Your task to perform on an android device: toggle show notifications on the lock screen Image 0: 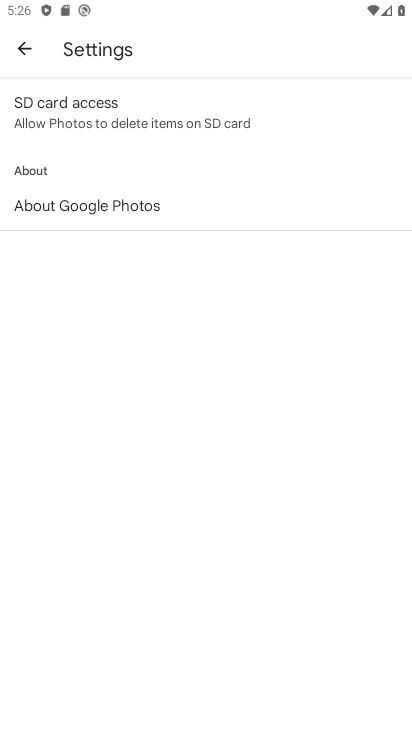
Step 0: press home button
Your task to perform on an android device: toggle show notifications on the lock screen Image 1: 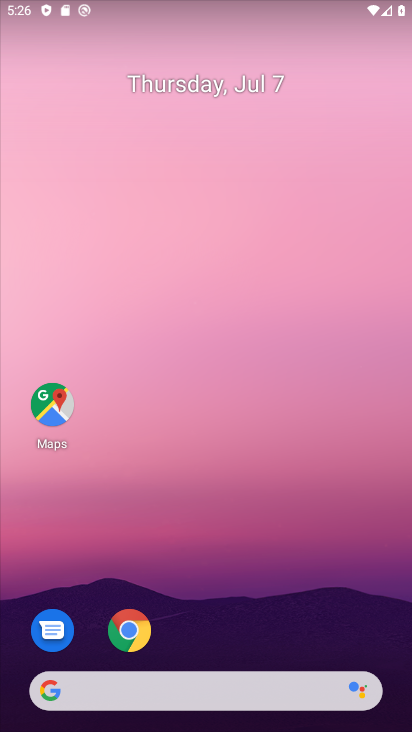
Step 1: drag from (314, 0) to (299, 48)
Your task to perform on an android device: toggle show notifications on the lock screen Image 2: 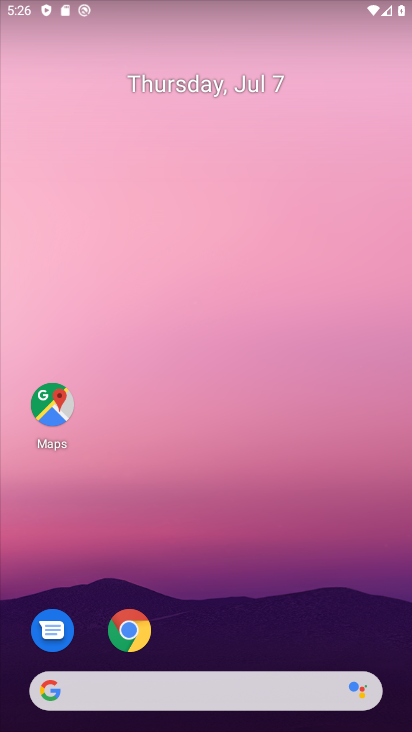
Step 2: drag from (191, 644) to (234, 127)
Your task to perform on an android device: toggle show notifications on the lock screen Image 3: 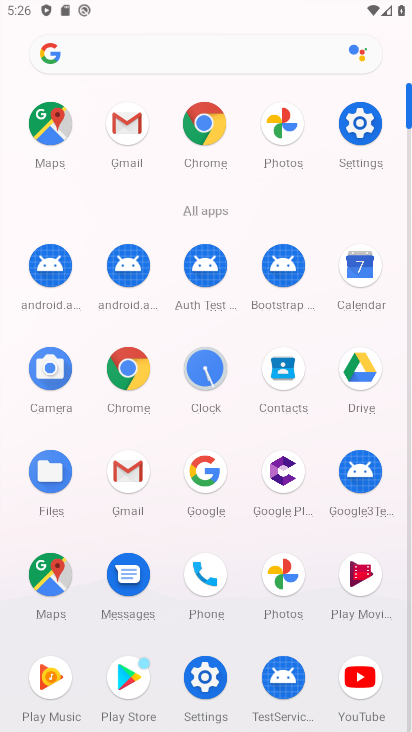
Step 3: click (372, 118)
Your task to perform on an android device: toggle show notifications on the lock screen Image 4: 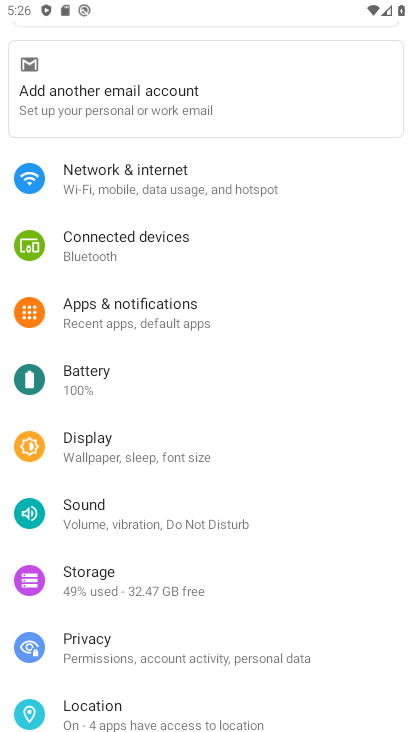
Step 4: click (171, 306)
Your task to perform on an android device: toggle show notifications on the lock screen Image 5: 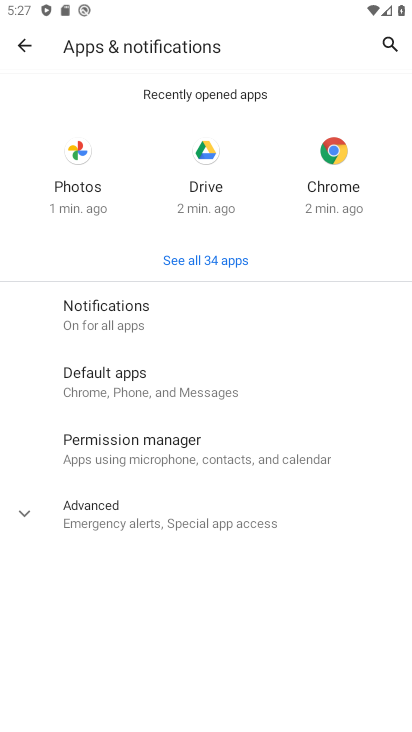
Step 5: click (130, 319)
Your task to perform on an android device: toggle show notifications on the lock screen Image 6: 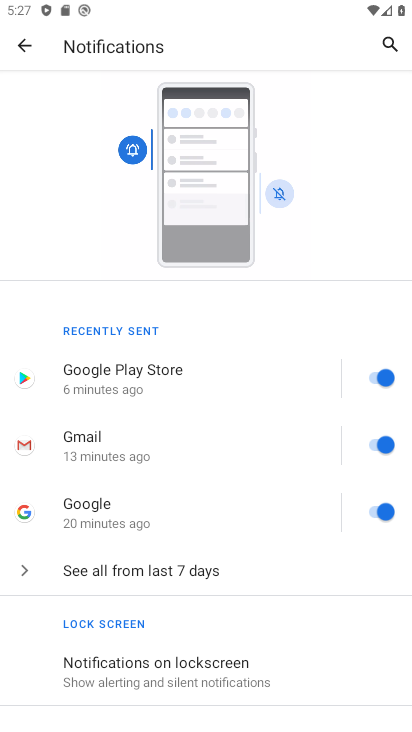
Step 6: click (140, 662)
Your task to perform on an android device: toggle show notifications on the lock screen Image 7: 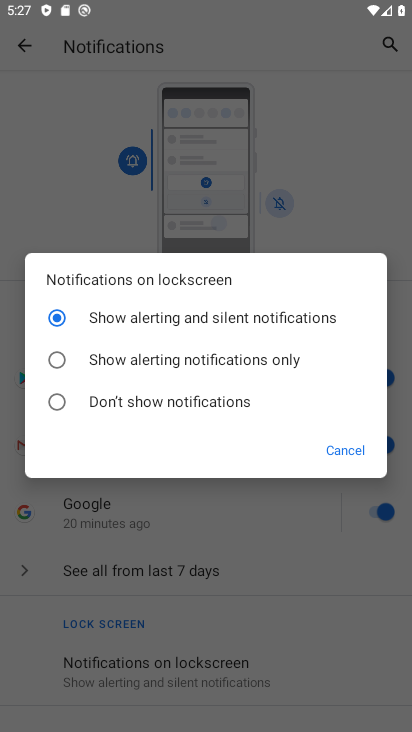
Step 7: click (57, 399)
Your task to perform on an android device: toggle show notifications on the lock screen Image 8: 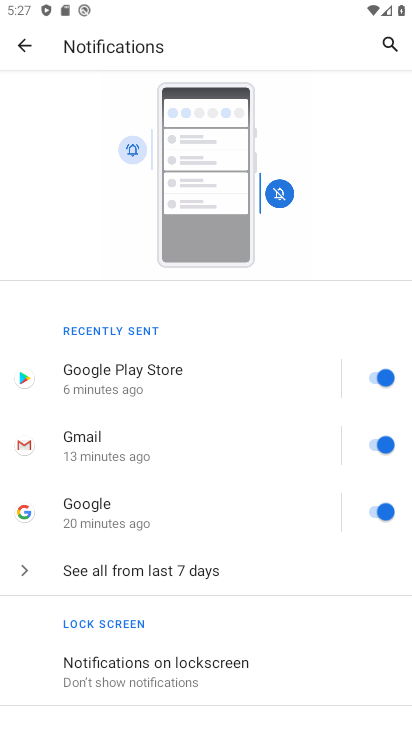
Step 8: task complete